Your task to perform on an android device: Go to notification settings Image 0: 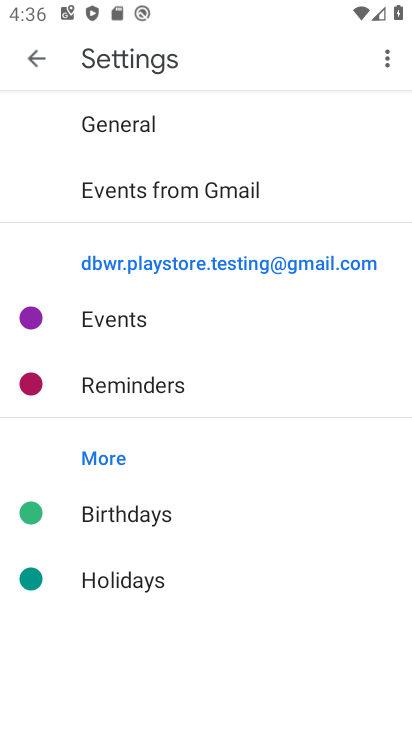
Step 0: press home button
Your task to perform on an android device: Go to notification settings Image 1: 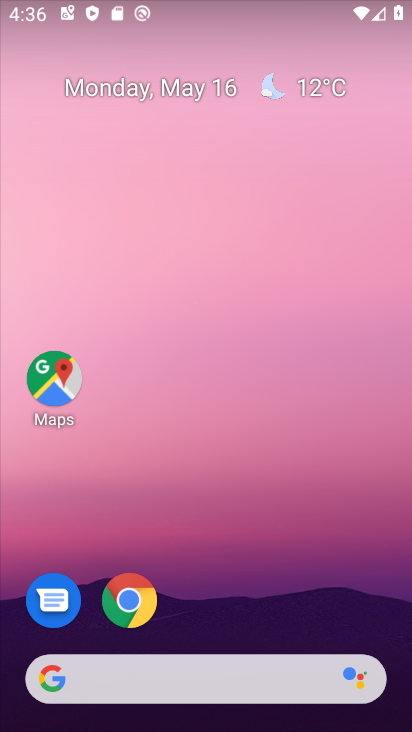
Step 1: drag from (159, 623) to (203, 279)
Your task to perform on an android device: Go to notification settings Image 2: 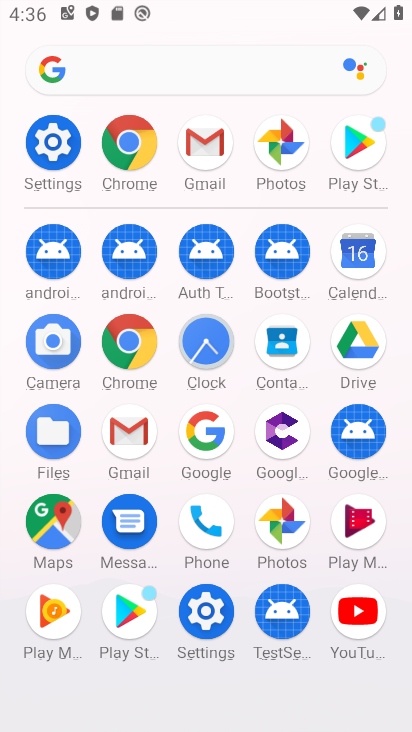
Step 2: click (46, 145)
Your task to perform on an android device: Go to notification settings Image 3: 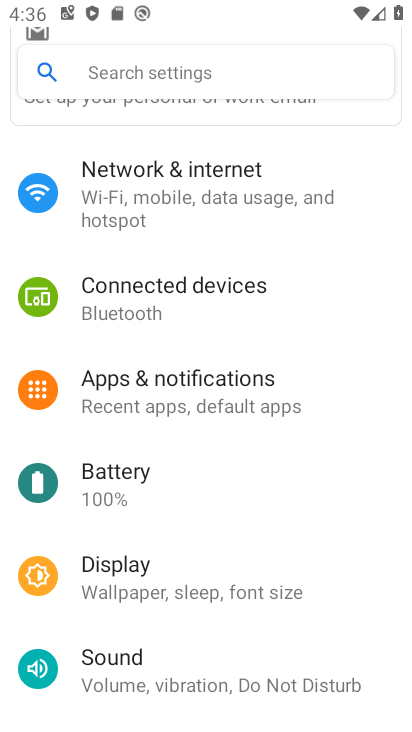
Step 3: click (177, 391)
Your task to perform on an android device: Go to notification settings Image 4: 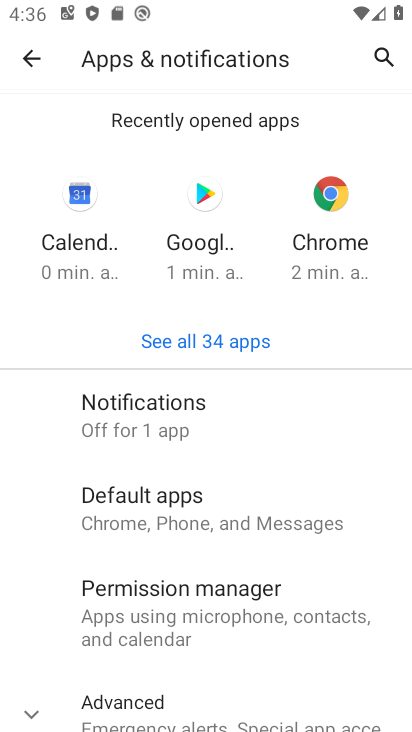
Step 4: click (205, 387)
Your task to perform on an android device: Go to notification settings Image 5: 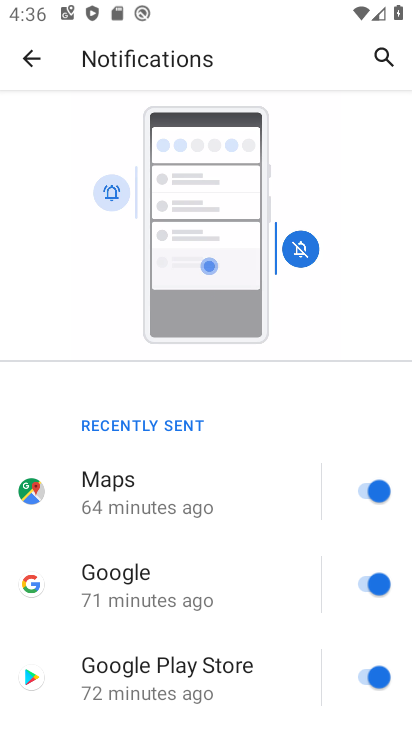
Step 5: drag from (244, 688) to (273, 215)
Your task to perform on an android device: Go to notification settings Image 6: 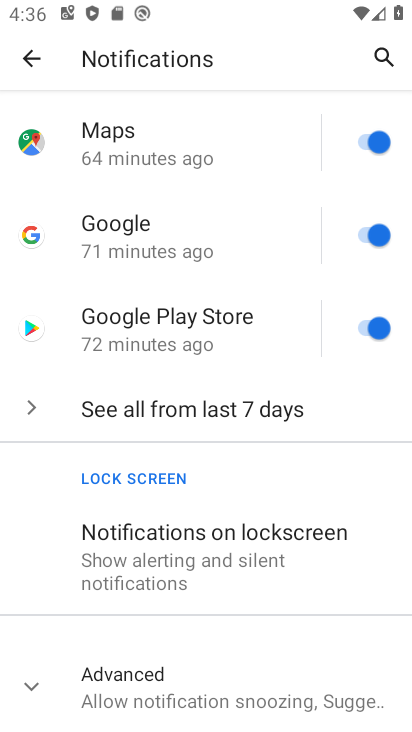
Step 6: drag from (237, 665) to (260, 197)
Your task to perform on an android device: Go to notification settings Image 7: 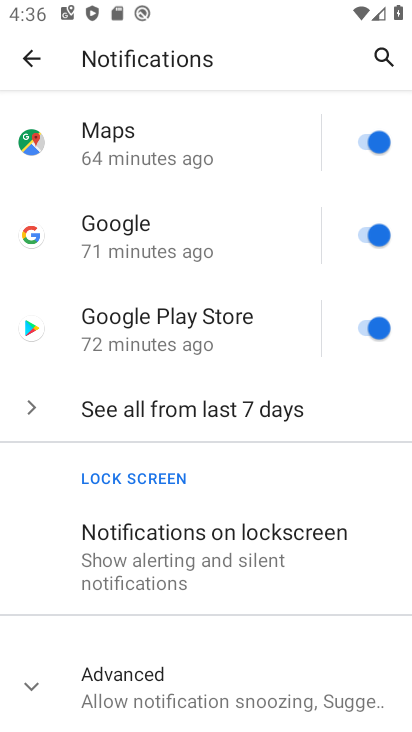
Step 7: click (167, 678)
Your task to perform on an android device: Go to notification settings Image 8: 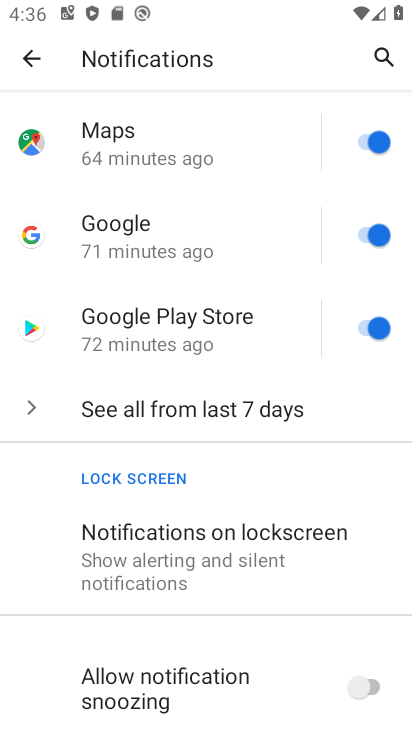
Step 8: task complete